Your task to perform on an android device: add a label to a message in the gmail app Image 0: 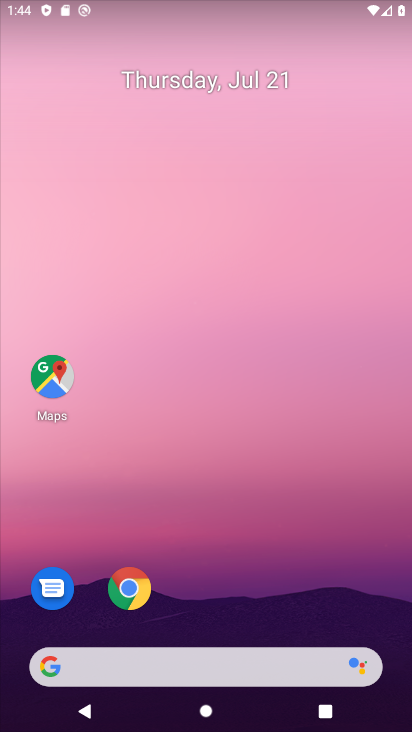
Step 0: drag from (249, 583) to (307, 142)
Your task to perform on an android device: add a label to a message in the gmail app Image 1: 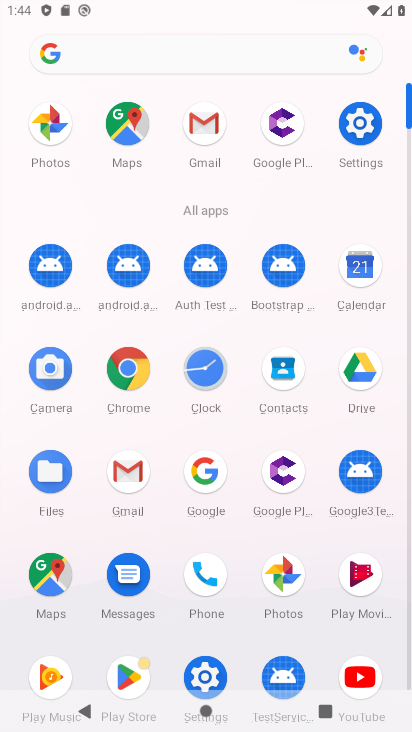
Step 1: click (131, 467)
Your task to perform on an android device: add a label to a message in the gmail app Image 2: 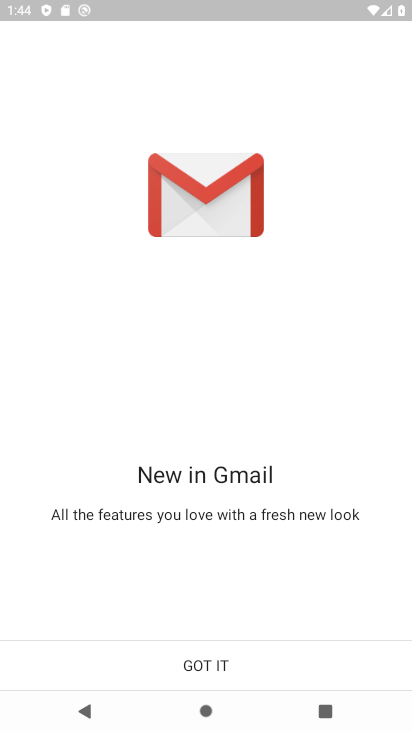
Step 2: click (209, 681)
Your task to perform on an android device: add a label to a message in the gmail app Image 3: 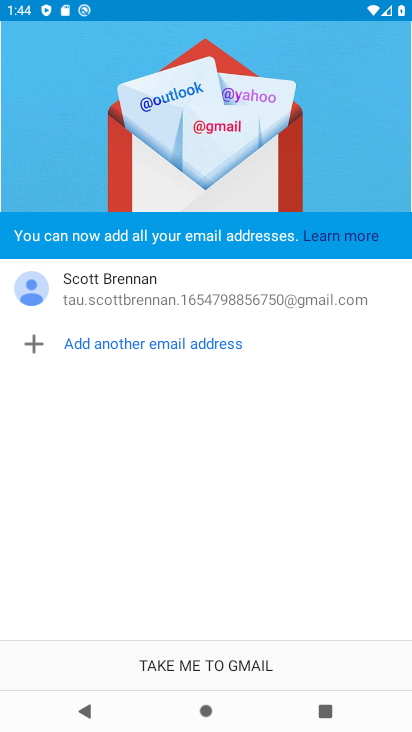
Step 3: click (246, 657)
Your task to perform on an android device: add a label to a message in the gmail app Image 4: 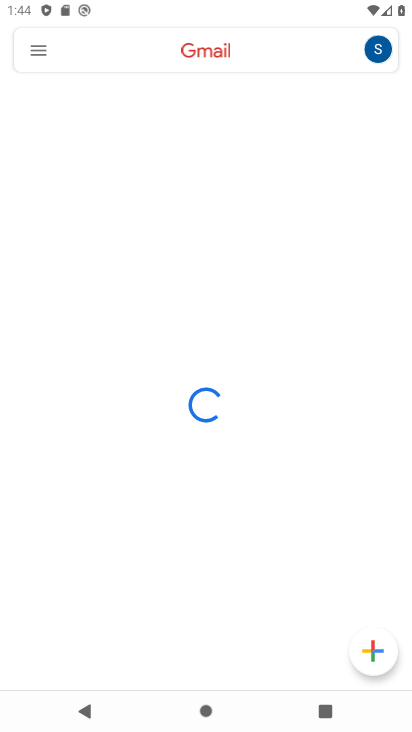
Step 4: drag from (193, 619) to (240, 321)
Your task to perform on an android device: add a label to a message in the gmail app Image 5: 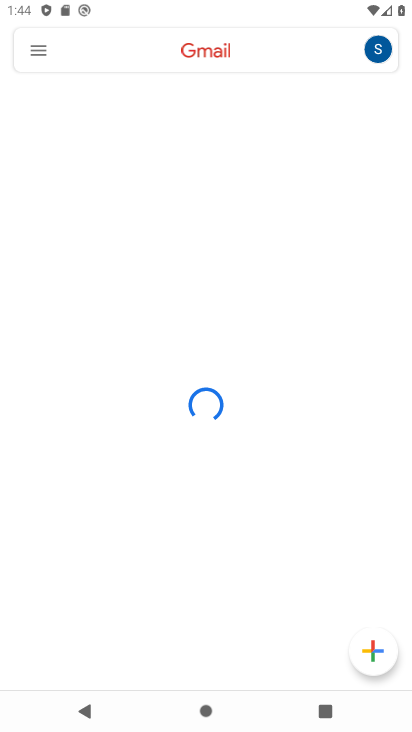
Step 5: drag from (235, 389) to (300, 96)
Your task to perform on an android device: add a label to a message in the gmail app Image 6: 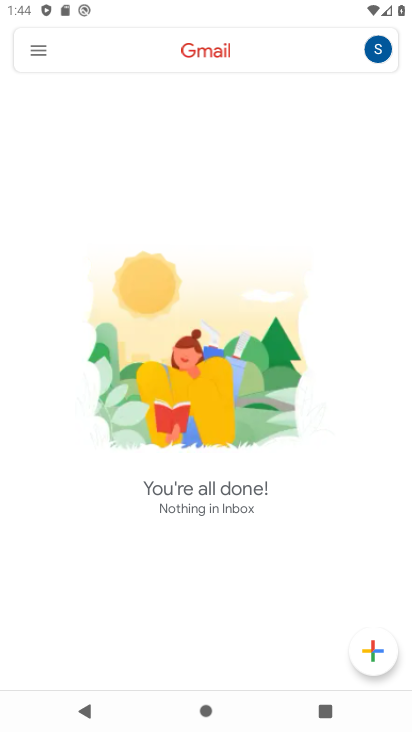
Step 6: drag from (244, 612) to (243, 162)
Your task to perform on an android device: add a label to a message in the gmail app Image 7: 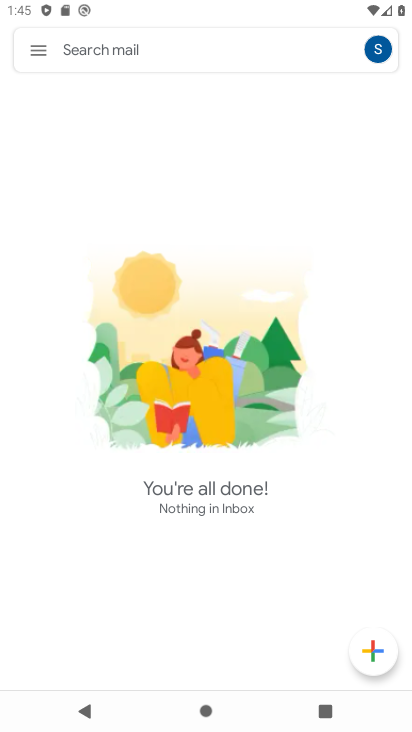
Step 7: click (35, 59)
Your task to perform on an android device: add a label to a message in the gmail app Image 8: 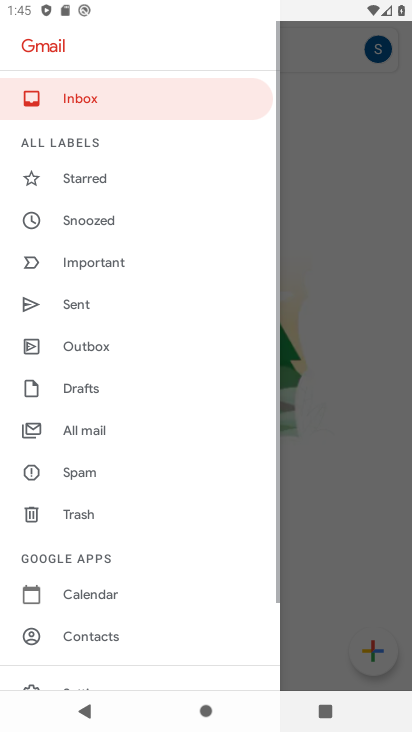
Step 8: drag from (166, 473) to (171, 261)
Your task to perform on an android device: add a label to a message in the gmail app Image 9: 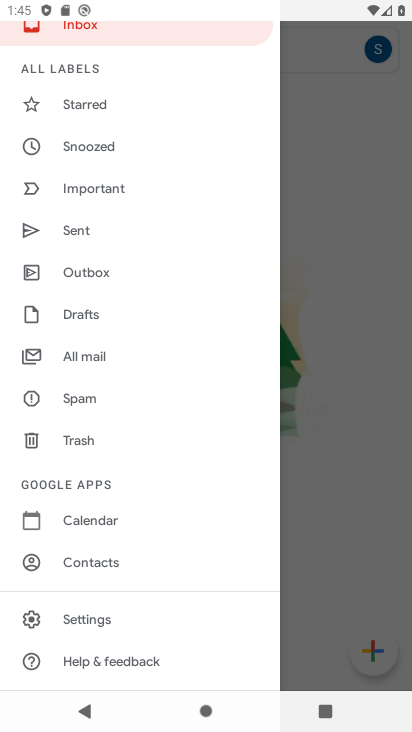
Step 9: drag from (128, 590) to (187, 189)
Your task to perform on an android device: add a label to a message in the gmail app Image 10: 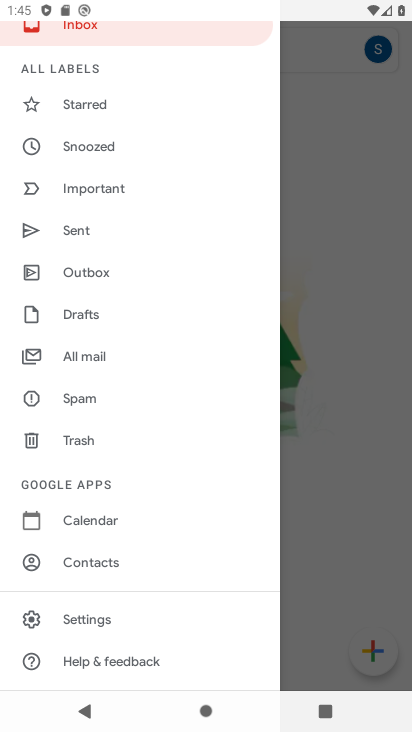
Step 10: click (375, 345)
Your task to perform on an android device: add a label to a message in the gmail app Image 11: 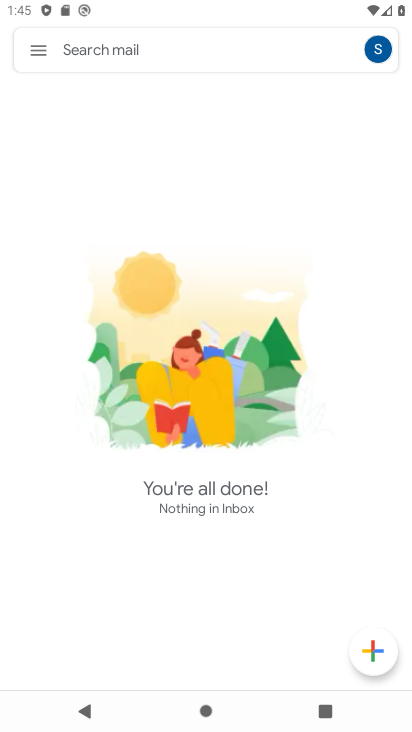
Step 11: task complete